Your task to perform on an android device: delete a single message in the gmail app Image 0: 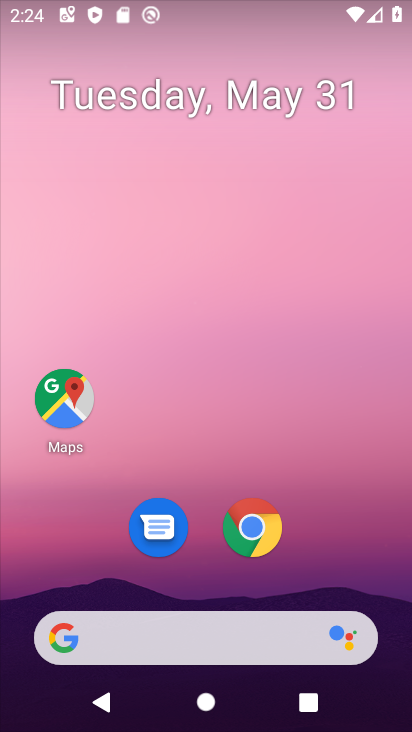
Step 0: drag from (380, 546) to (411, 119)
Your task to perform on an android device: delete a single message in the gmail app Image 1: 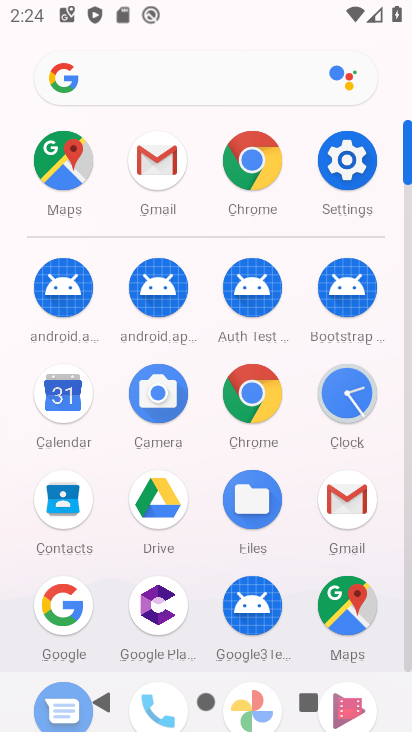
Step 1: click (154, 173)
Your task to perform on an android device: delete a single message in the gmail app Image 2: 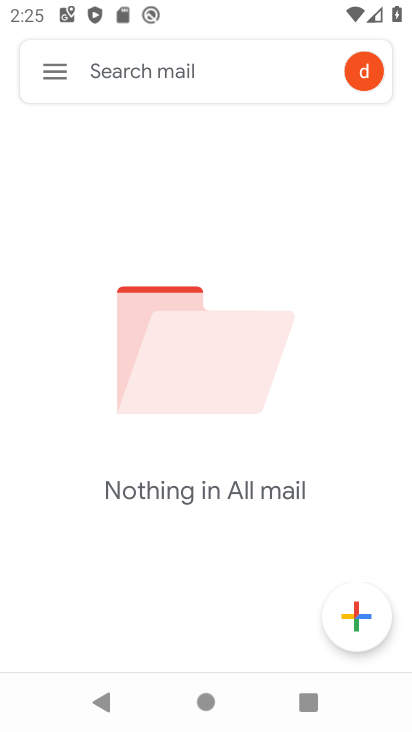
Step 2: task complete